Your task to perform on an android device: Open Reddit.com Image 0: 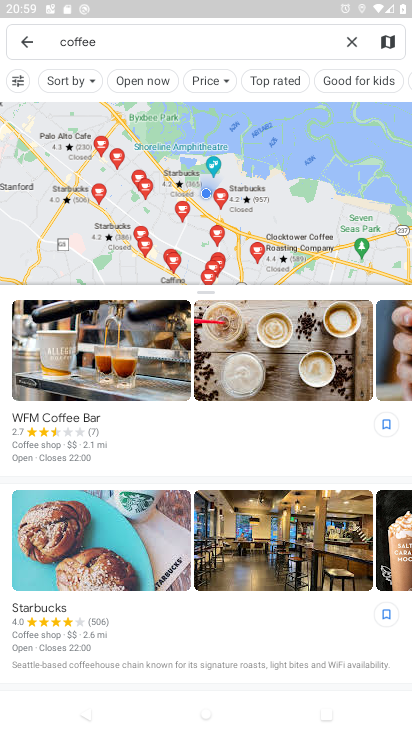
Step 0: press home button
Your task to perform on an android device: Open Reddit.com Image 1: 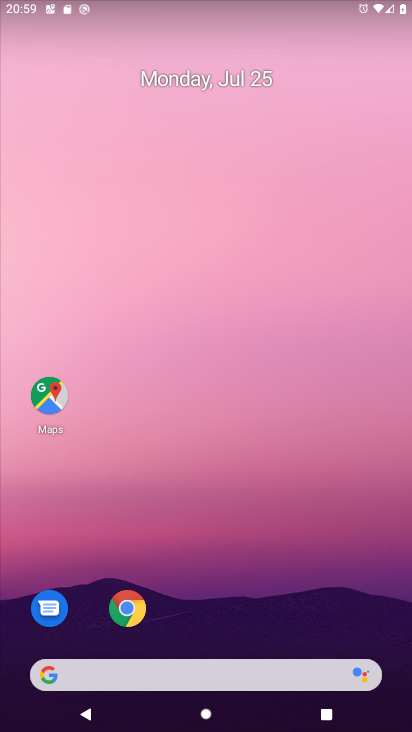
Step 1: click (120, 603)
Your task to perform on an android device: Open Reddit.com Image 2: 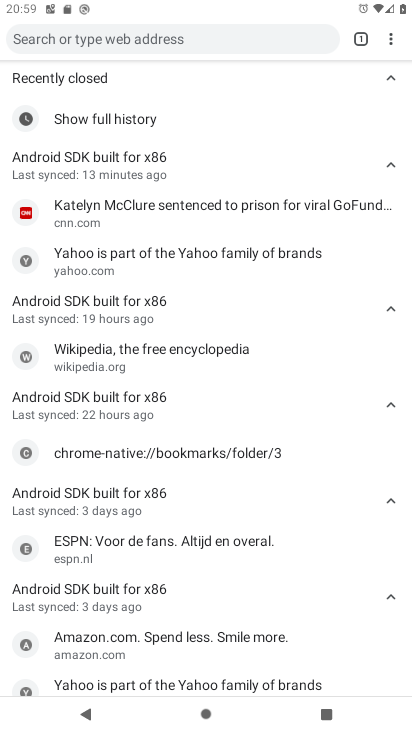
Step 2: click (172, 40)
Your task to perform on an android device: Open Reddit.com Image 3: 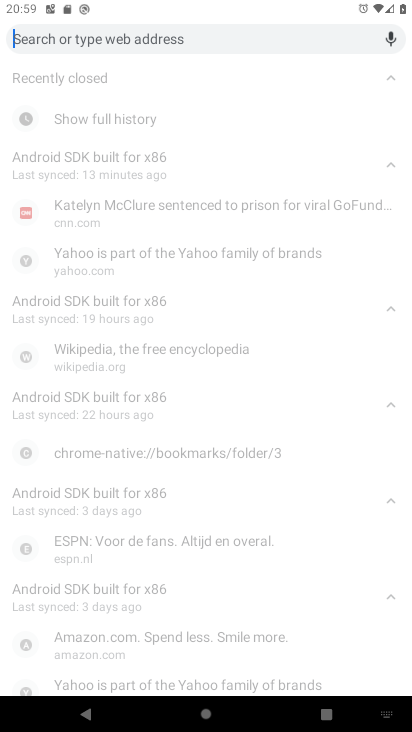
Step 3: type "Reddit.com"
Your task to perform on an android device: Open Reddit.com Image 4: 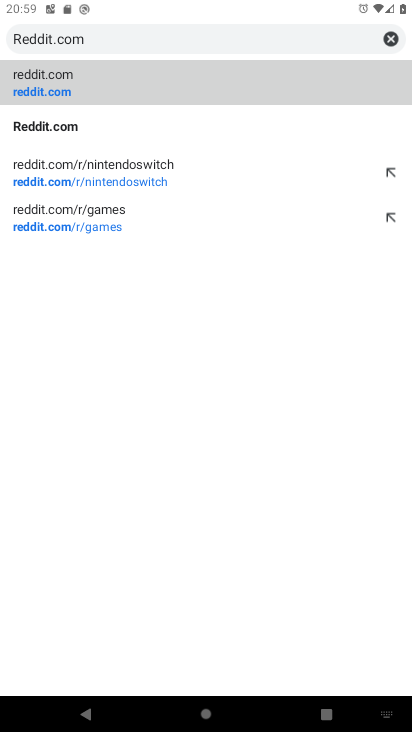
Step 4: click (192, 79)
Your task to perform on an android device: Open Reddit.com Image 5: 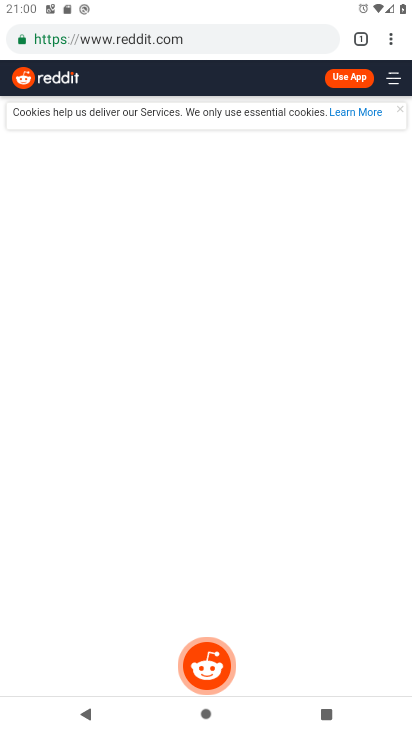
Step 5: task complete